Your task to perform on an android device: Clear the shopping cart on target.com. Add razer blade to the cart on target.com Image 0: 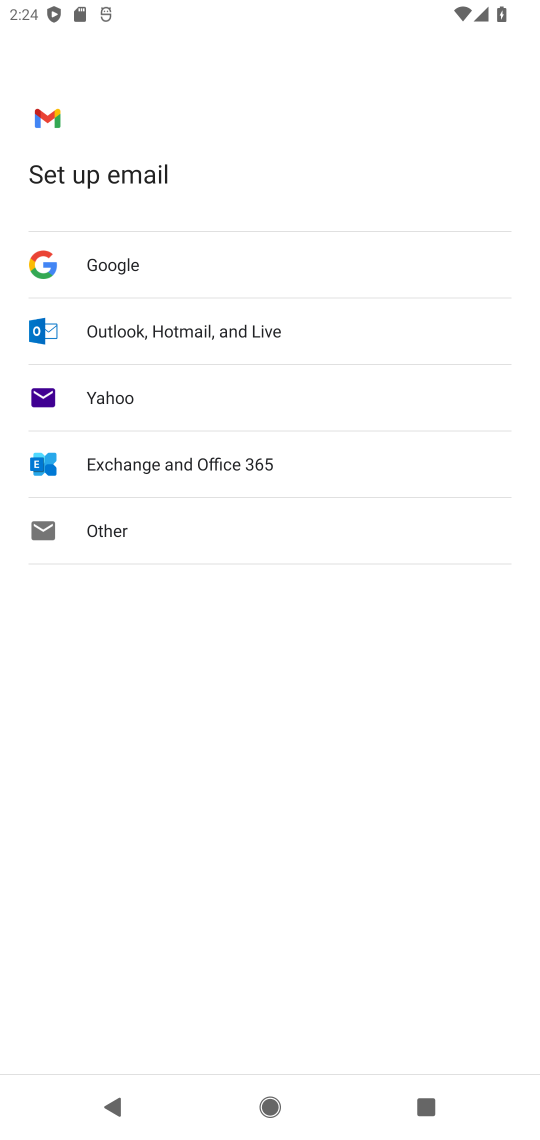
Step 0: press home button
Your task to perform on an android device: Clear the shopping cart on target.com. Add razer blade to the cart on target.com Image 1: 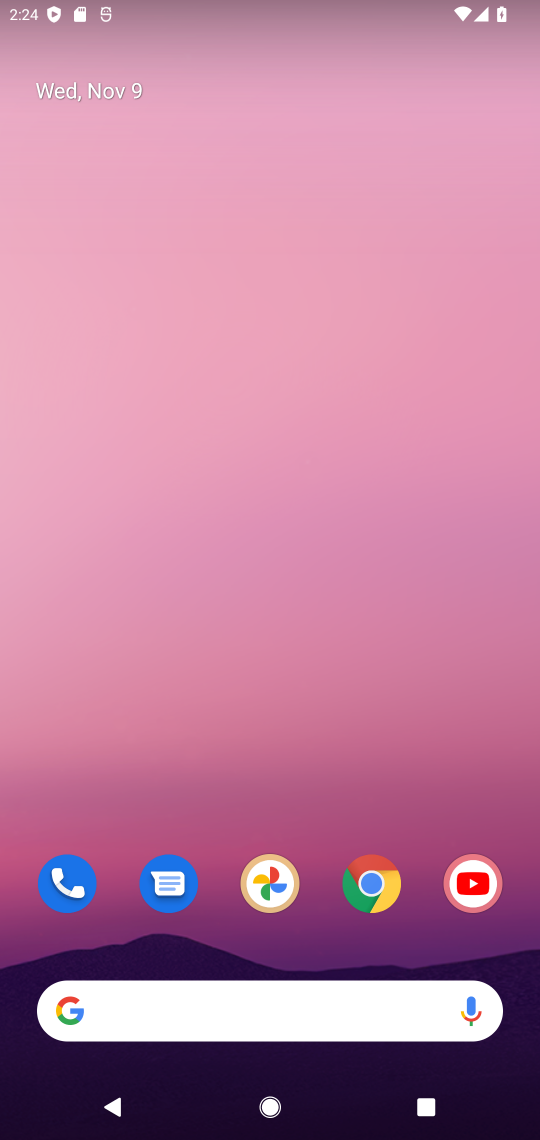
Step 1: click (374, 887)
Your task to perform on an android device: Clear the shopping cart on target.com. Add razer blade to the cart on target.com Image 2: 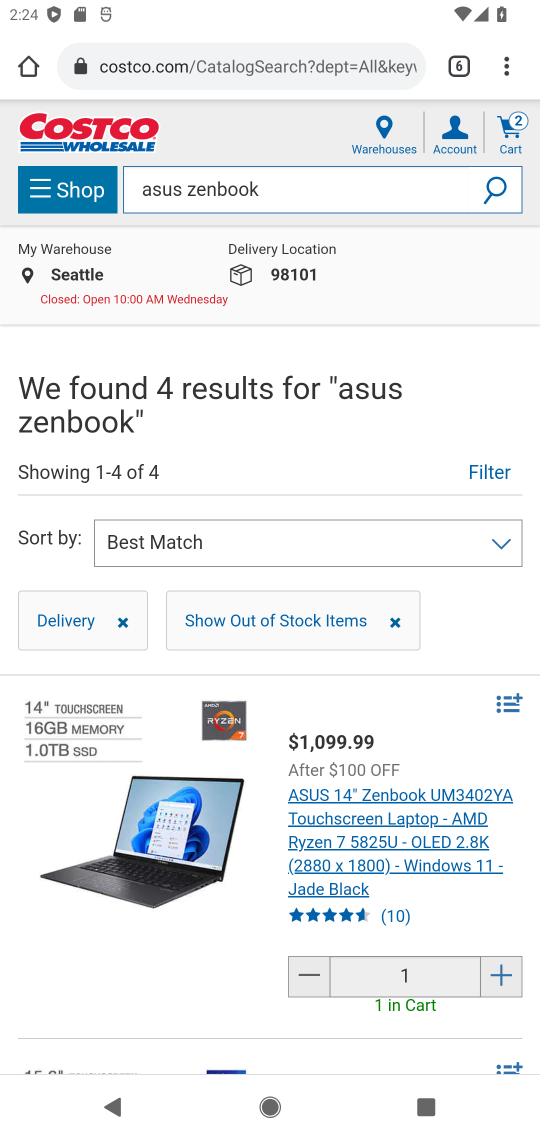
Step 2: click (457, 58)
Your task to perform on an android device: Clear the shopping cart on target.com. Add razer blade to the cart on target.com Image 3: 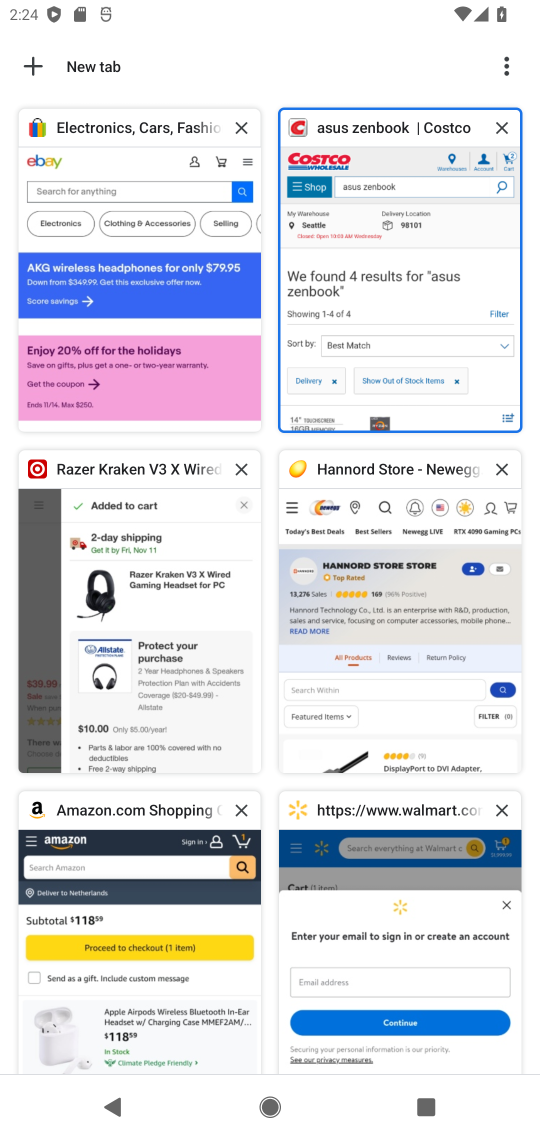
Step 3: click (139, 592)
Your task to perform on an android device: Clear the shopping cart on target.com. Add razer blade to the cart on target.com Image 4: 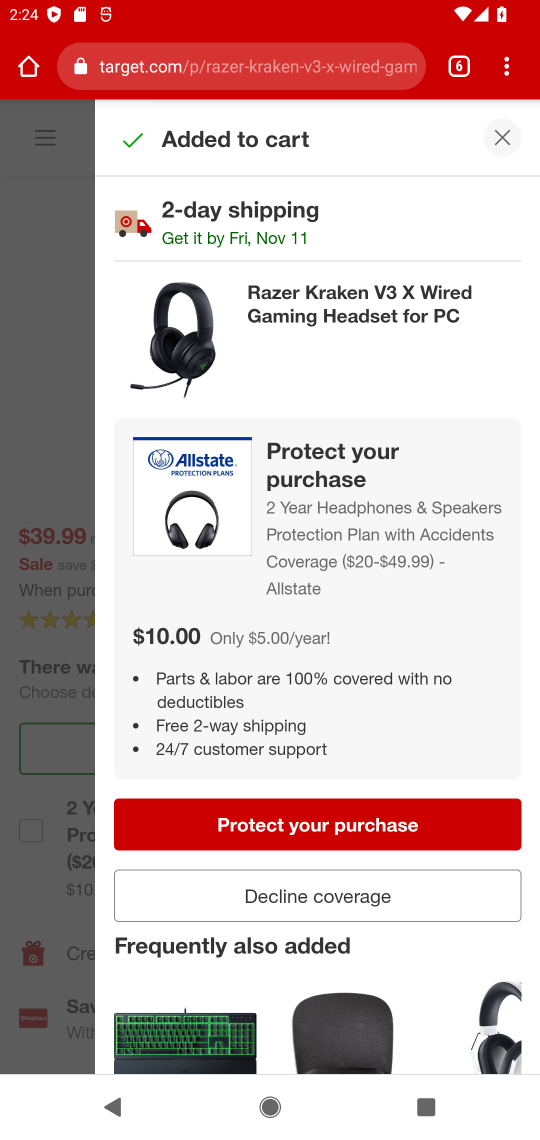
Step 4: click (496, 130)
Your task to perform on an android device: Clear the shopping cart on target.com. Add razer blade to the cart on target.com Image 5: 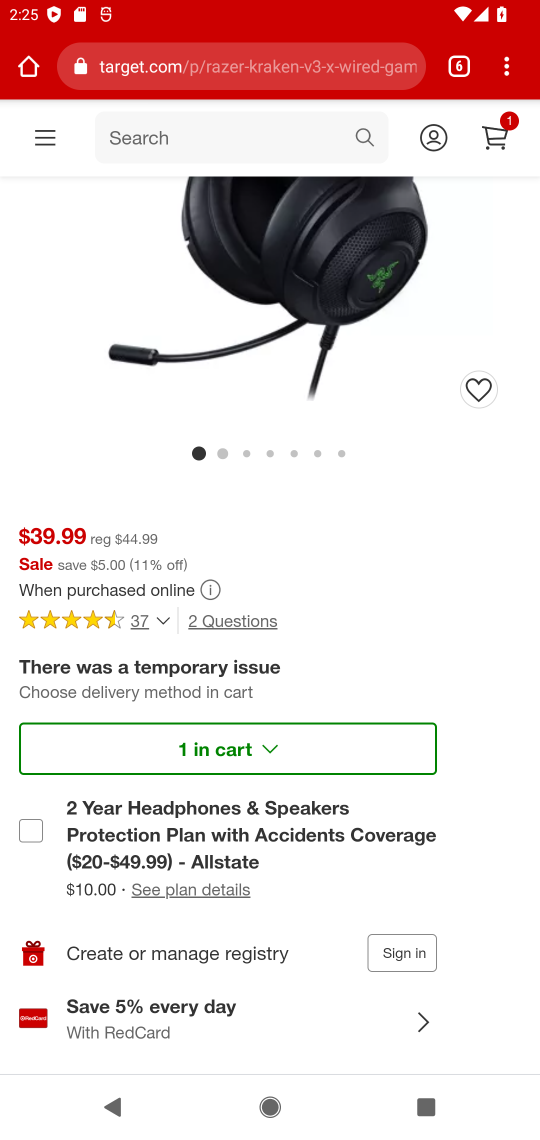
Step 5: click (496, 130)
Your task to perform on an android device: Clear the shopping cart on target.com. Add razer blade to the cart on target.com Image 6: 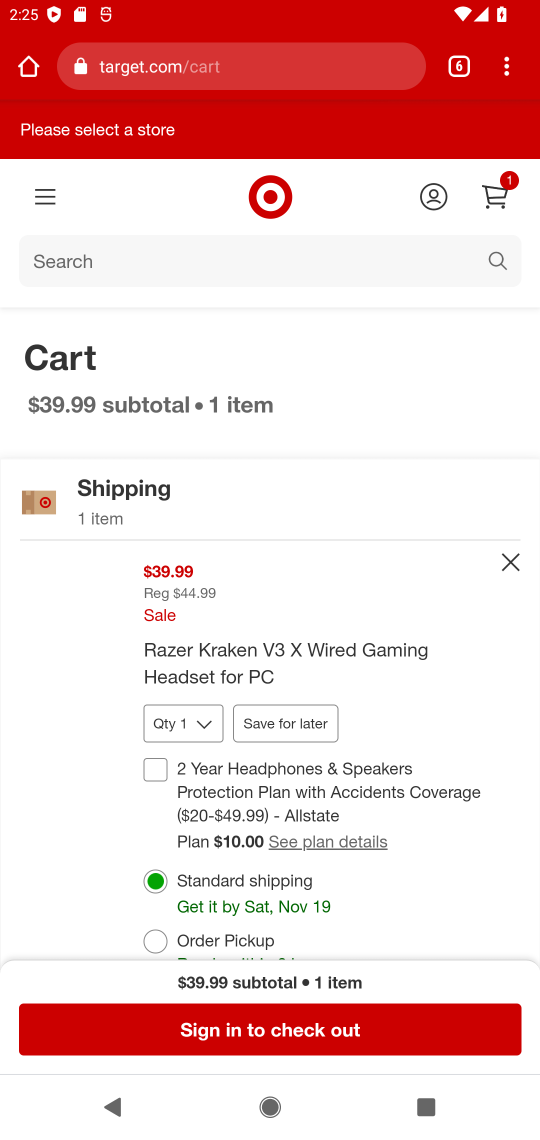
Step 6: click (510, 556)
Your task to perform on an android device: Clear the shopping cart on target.com. Add razer blade to the cart on target.com Image 7: 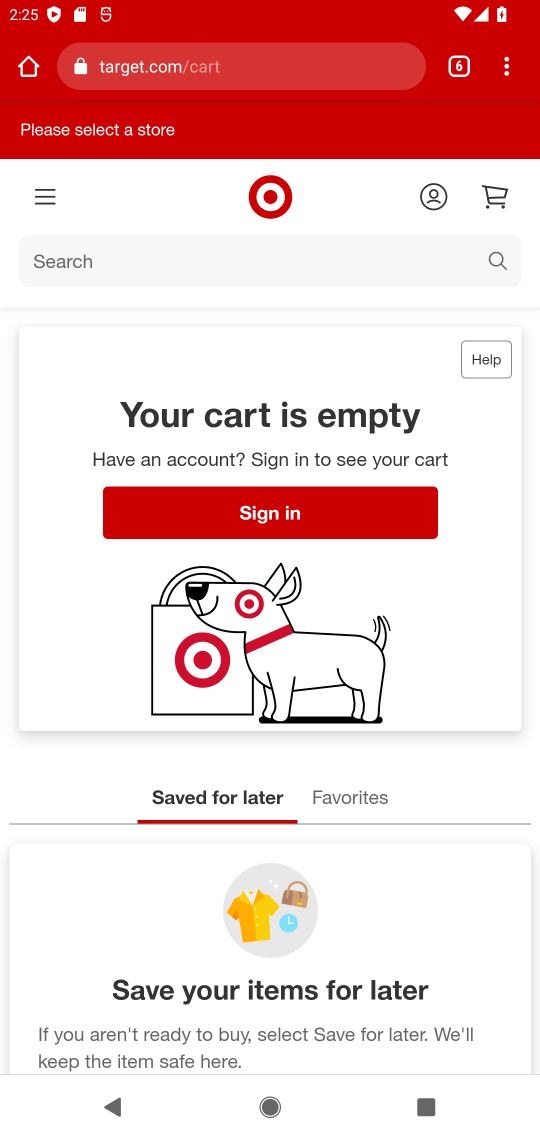
Step 7: click (54, 261)
Your task to perform on an android device: Clear the shopping cart on target.com. Add razer blade to the cart on target.com Image 8: 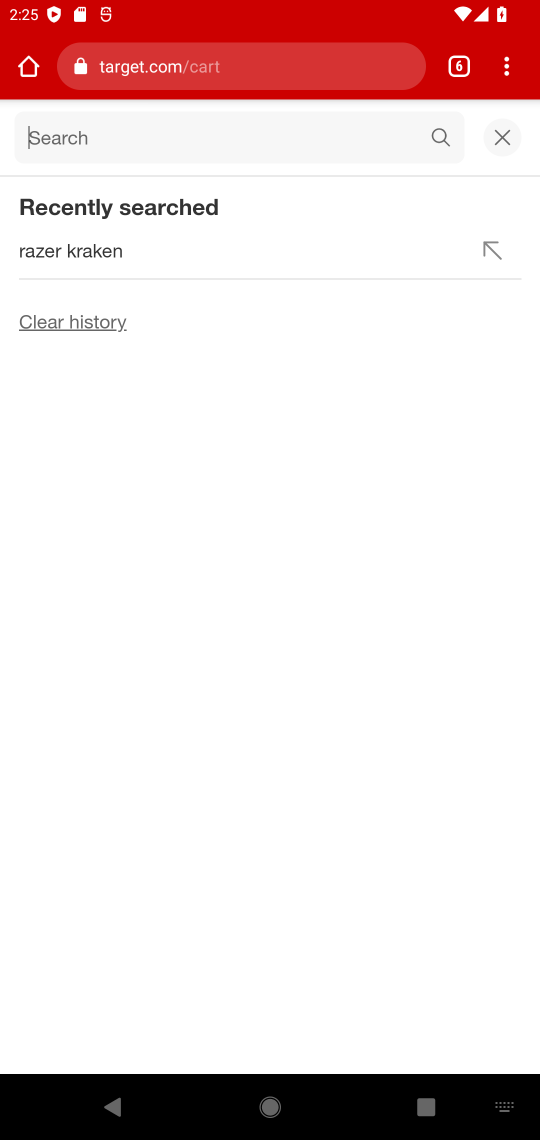
Step 8: type "razer blade"
Your task to perform on an android device: Clear the shopping cart on target.com. Add razer blade to the cart on target.com Image 9: 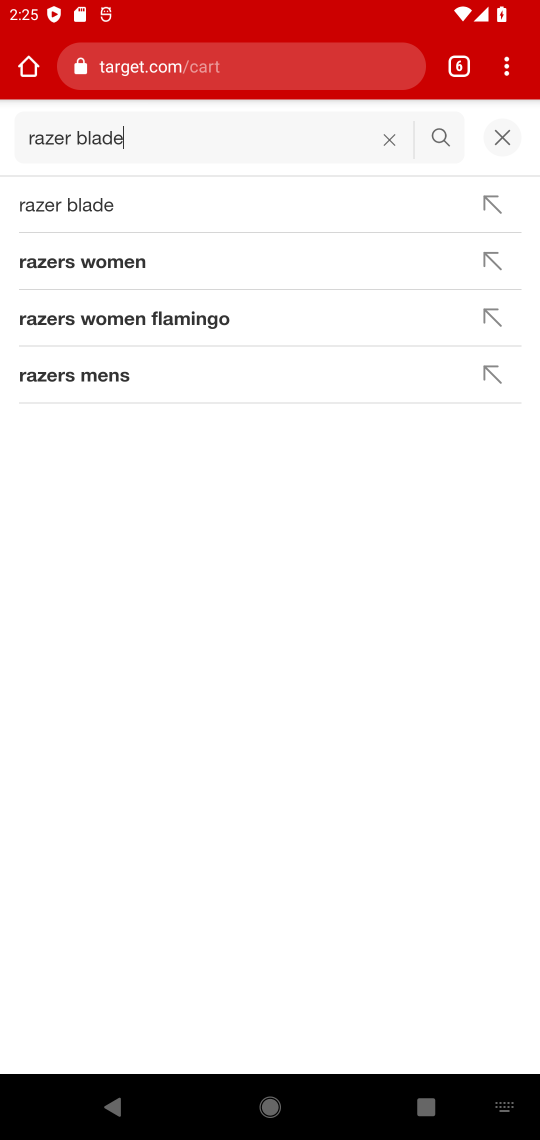
Step 9: click (39, 206)
Your task to perform on an android device: Clear the shopping cart on target.com. Add razer blade to the cart on target.com Image 10: 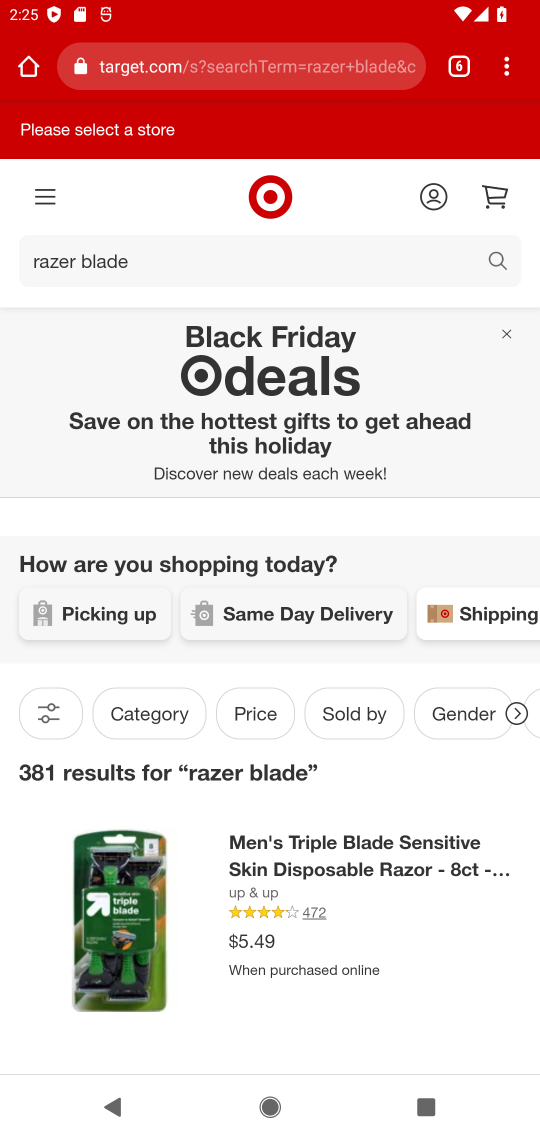
Step 10: drag from (389, 944) to (447, 372)
Your task to perform on an android device: Clear the shopping cart on target.com. Add razer blade to the cart on target.com Image 11: 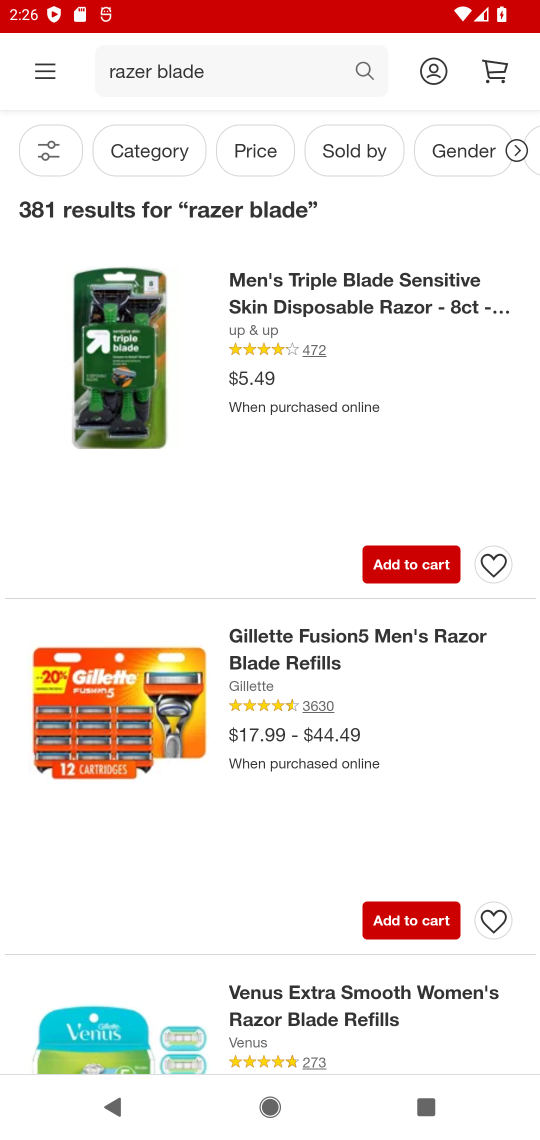
Step 11: click (425, 911)
Your task to perform on an android device: Clear the shopping cart on target.com. Add razer blade to the cart on target.com Image 12: 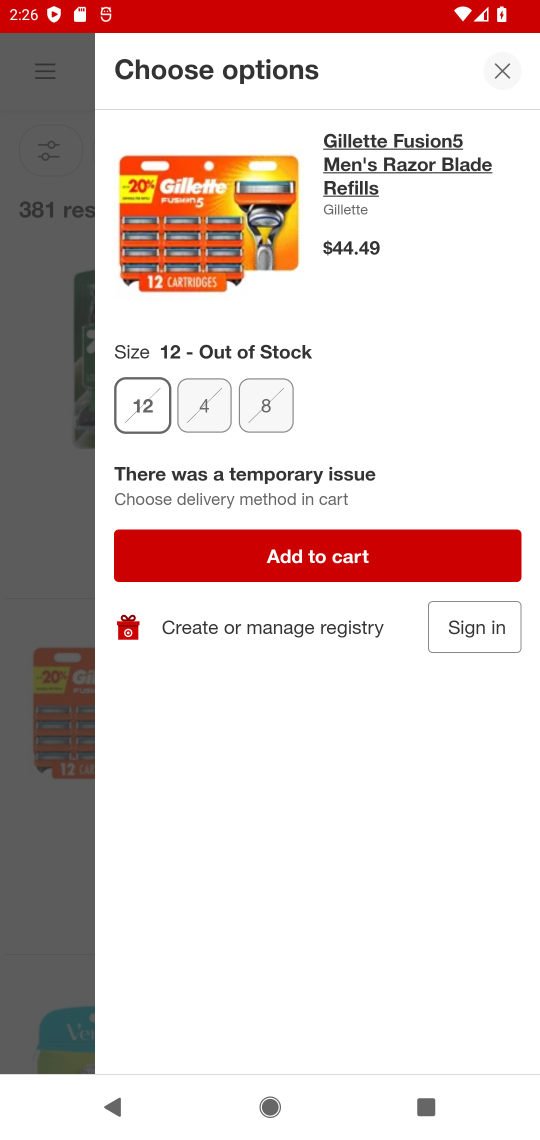
Step 12: click (315, 556)
Your task to perform on an android device: Clear the shopping cart on target.com. Add razer blade to the cart on target.com Image 13: 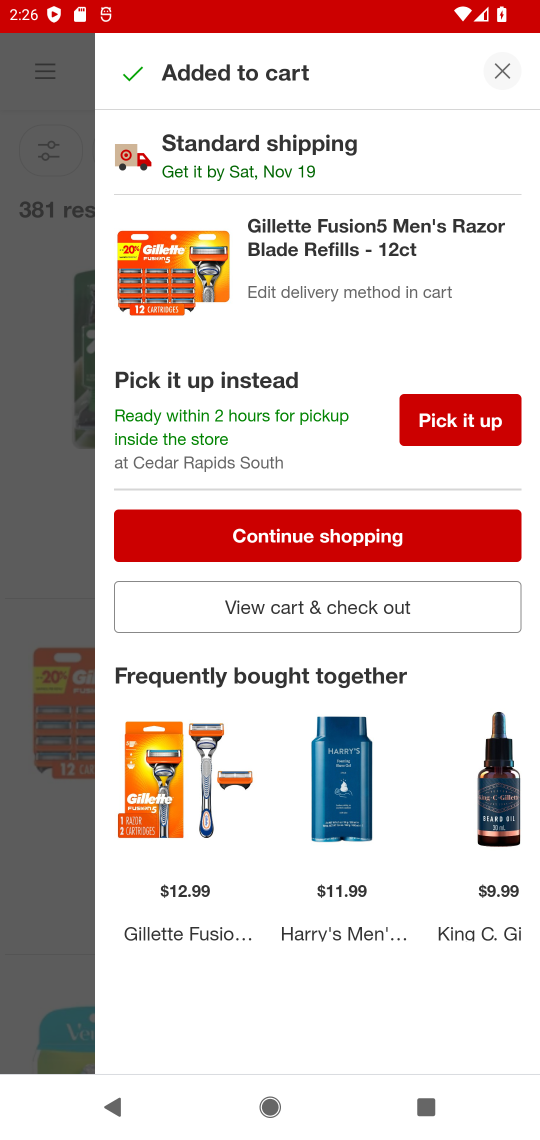
Step 13: task complete